Your task to perform on an android device: empty trash in google photos Image 0: 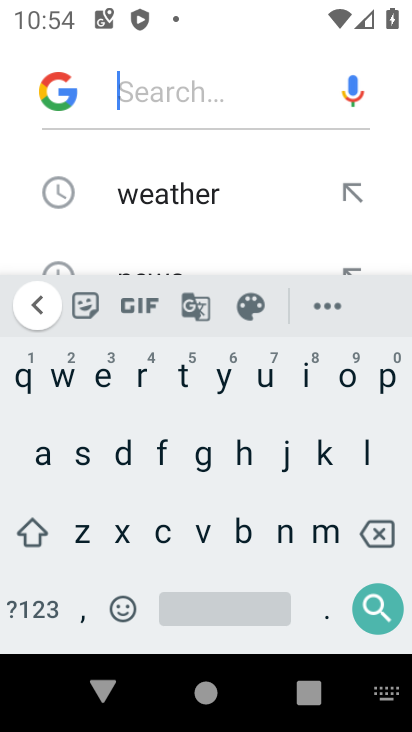
Step 0: press back button
Your task to perform on an android device: empty trash in google photos Image 1: 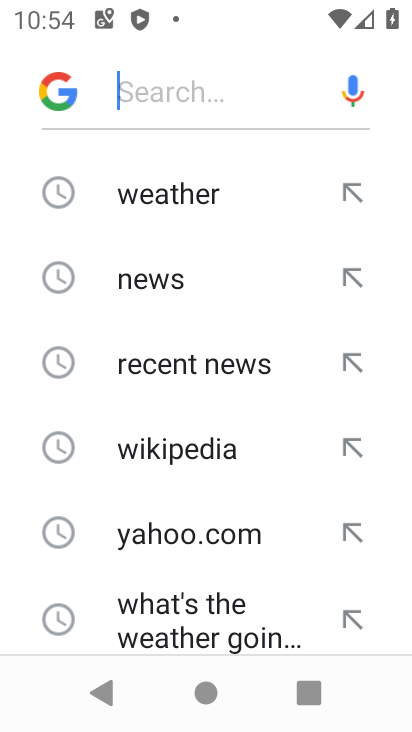
Step 1: press home button
Your task to perform on an android device: empty trash in google photos Image 2: 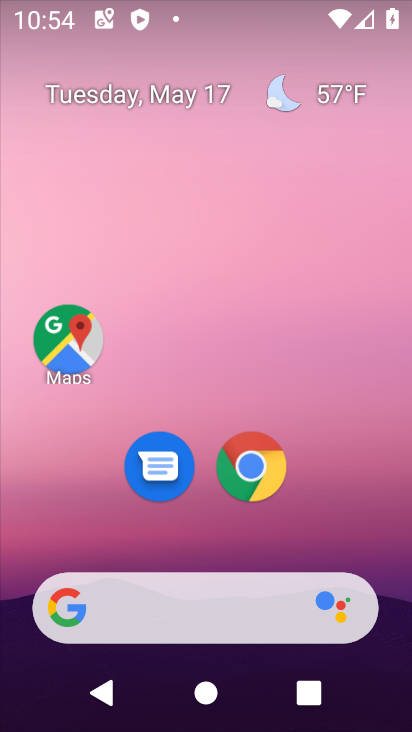
Step 2: drag from (221, 648) to (385, 142)
Your task to perform on an android device: empty trash in google photos Image 3: 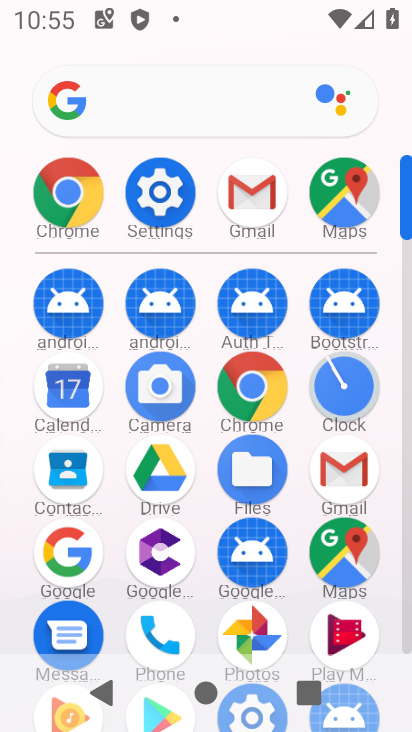
Step 3: click (251, 620)
Your task to perform on an android device: empty trash in google photos Image 4: 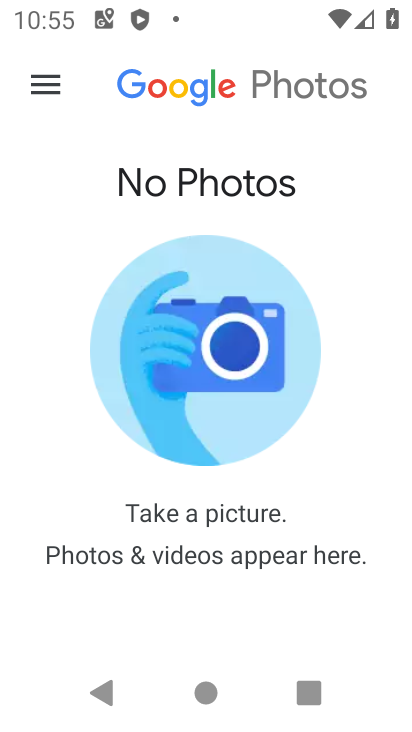
Step 4: click (48, 90)
Your task to perform on an android device: empty trash in google photos Image 5: 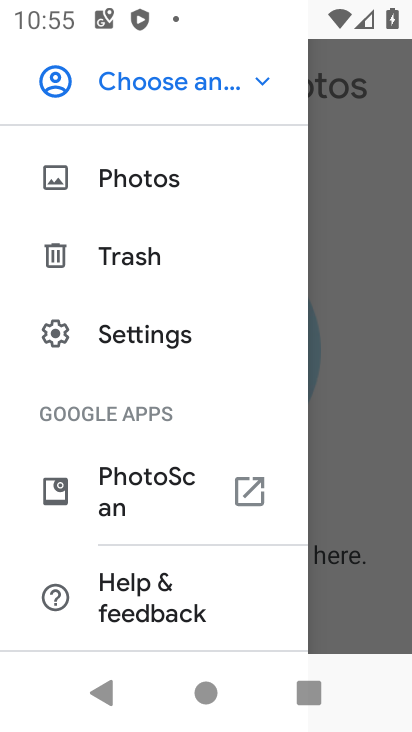
Step 5: click (113, 265)
Your task to perform on an android device: empty trash in google photos Image 6: 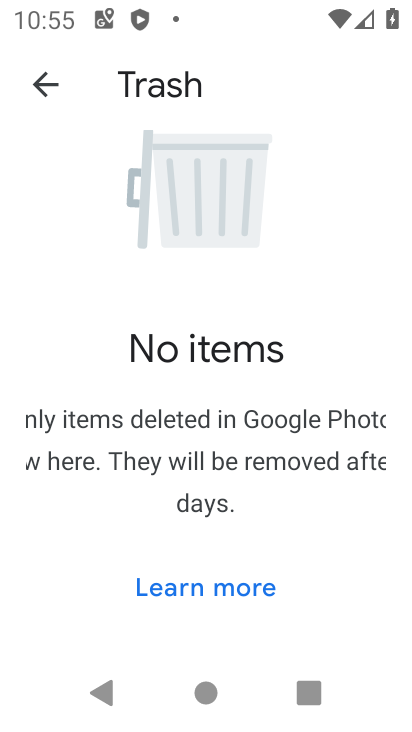
Step 6: task complete